Your task to perform on an android device: turn off location history Image 0: 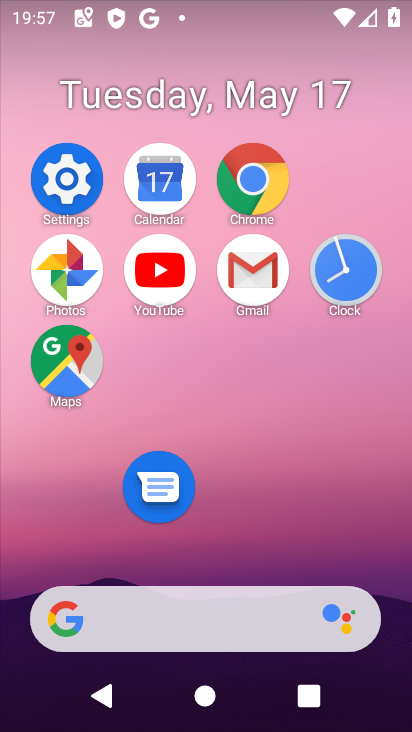
Step 0: click (76, 173)
Your task to perform on an android device: turn off location history Image 1: 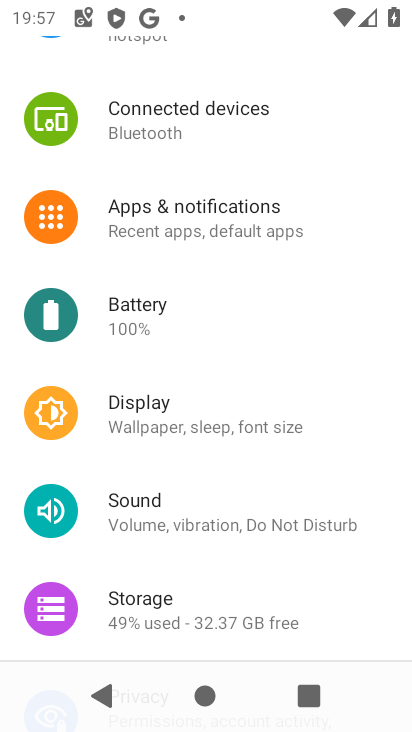
Step 1: drag from (256, 529) to (254, 234)
Your task to perform on an android device: turn off location history Image 2: 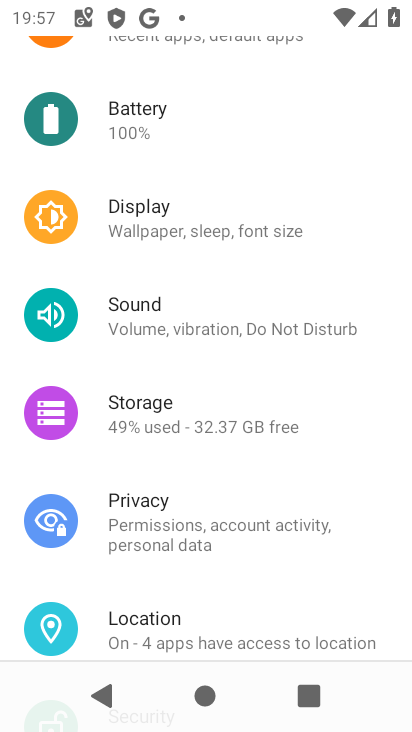
Step 2: click (189, 604)
Your task to perform on an android device: turn off location history Image 3: 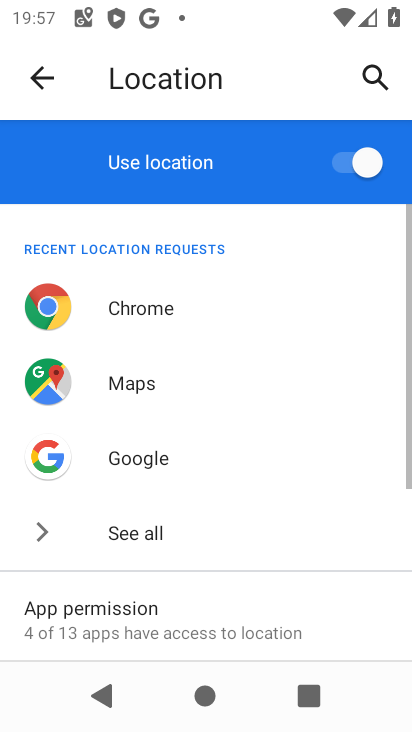
Step 3: drag from (186, 619) to (166, 206)
Your task to perform on an android device: turn off location history Image 4: 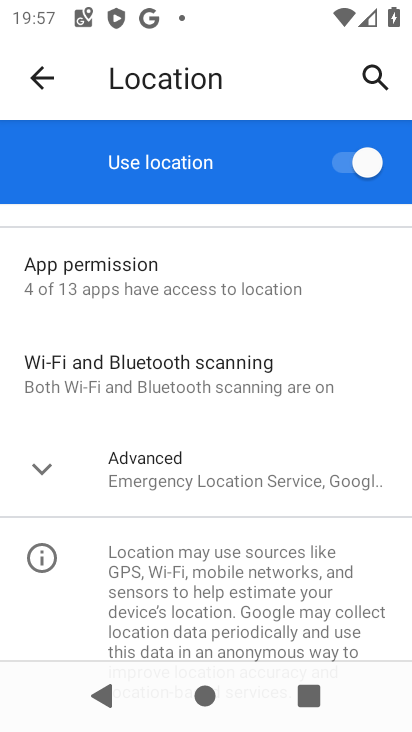
Step 4: click (186, 499)
Your task to perform on an android device: turn off location history Image 5: 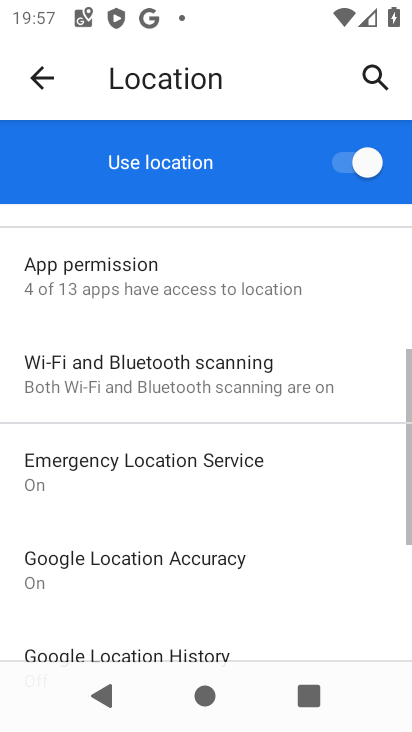
Step 5: drag from (186, 499) to (223, 186)
Your task to perform on an android device: turn off location history Image 6: 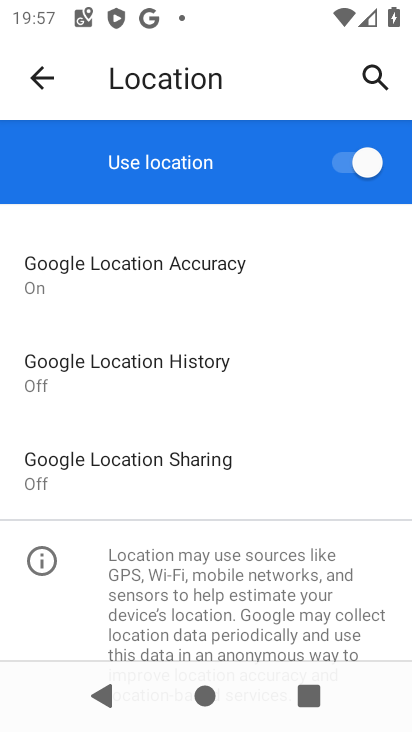
Step 6: click (219, 362)
Your task to perform on an android device: turn off location history Image 7: 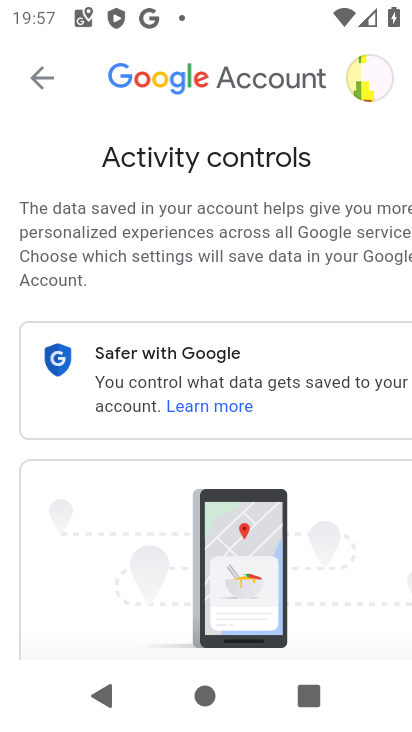
Step 7: drag from (313, 551) to (286, 216)
Your task to perform on an android device: turn off location history Image 8: 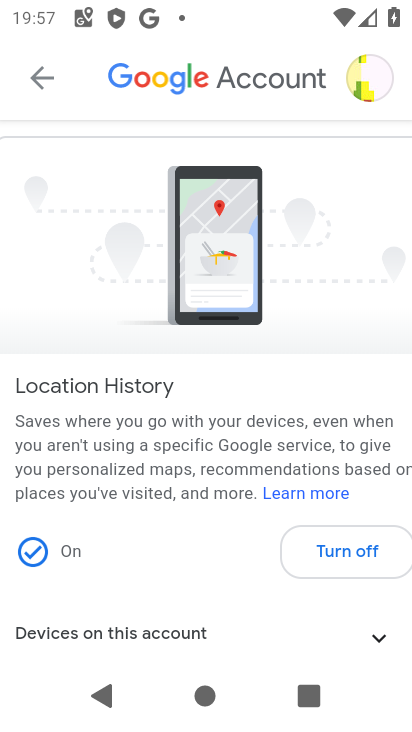
Step 8: drag from (303, 567) to (262, 239)
Your task to perform on an android device: turn off location history Image 9: 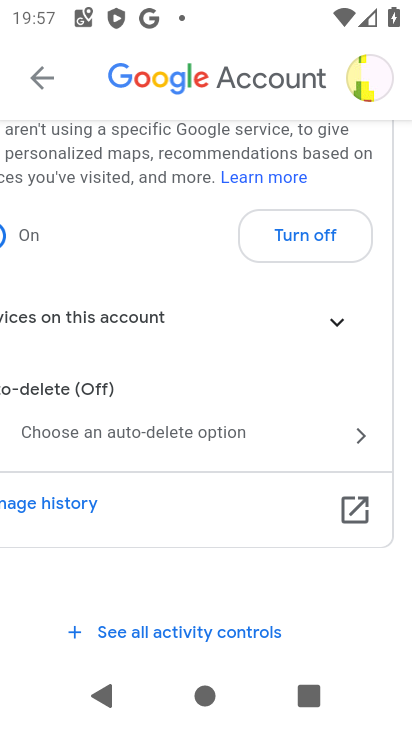
Step 9: click (330, 237)
Your task to perform on an android device: turn off location history Image 10: 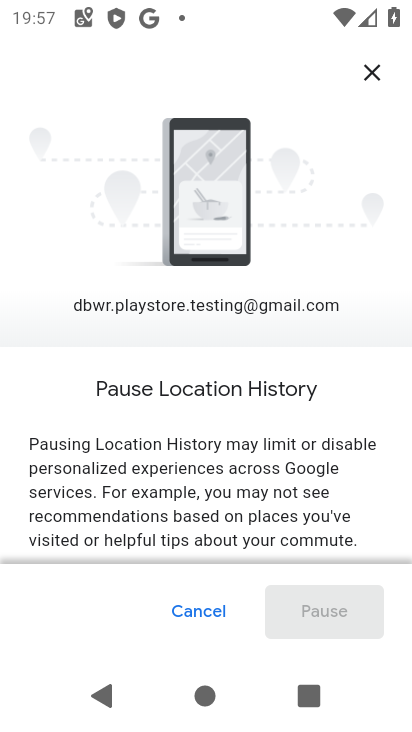
Step 10: drag from (297, 550) to (259, 204)
Your task to perform on an android device: turn off location history Image 11: 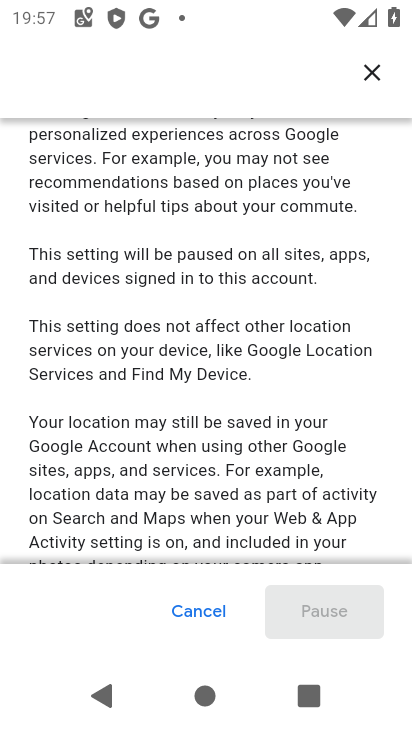
Step 11: drag from (266, 496) to (227, 149)
Your task to perform on an android device: turn off location history Image 12: 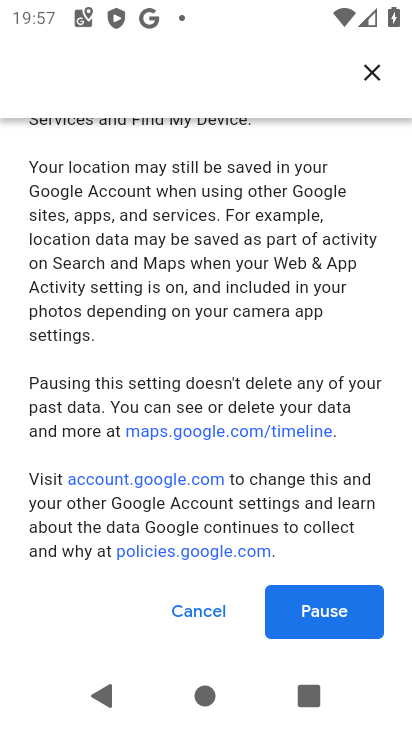
Step 12: drag from (264, 442) to (246, 193)
Your task to perform on an android device: turn off location history Image 13: 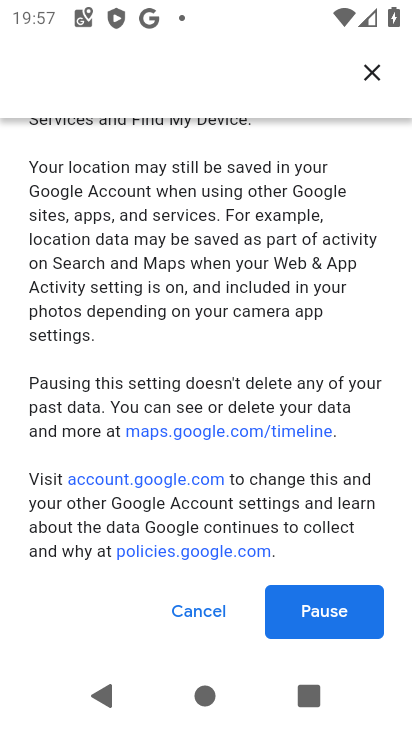
Step 13: click (348, 596)
Your task to perform on an android device: turn off location history Image 14: 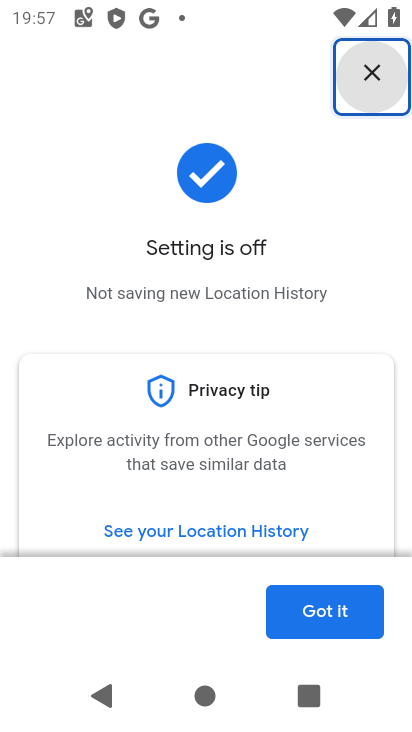
Step 14: click (344, 600)
Your task to perform on an android device: turn off location history Image 15: 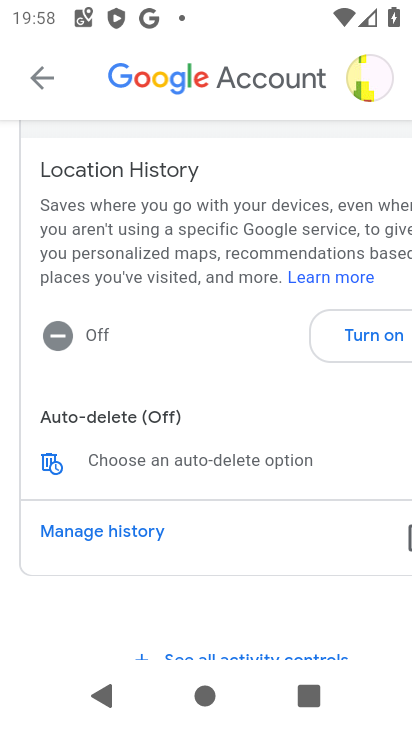
Step 15: task complete